Your task to perform on an android device: visit the assistant section in the google photos Image 0: 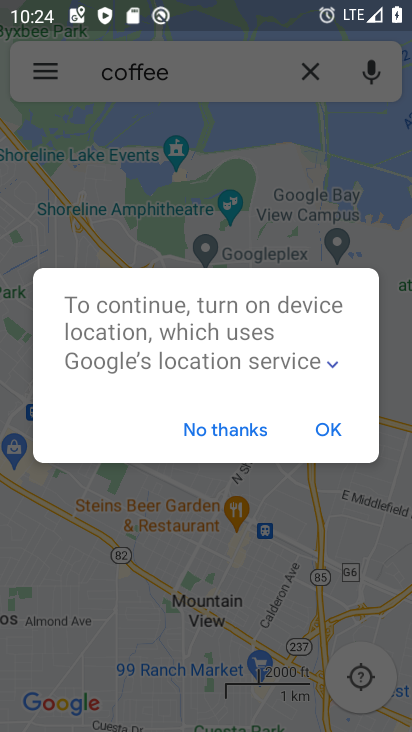
Step 0: press home button
Your task to perform on an android device: visit the assistant section in the google photos Image 1: 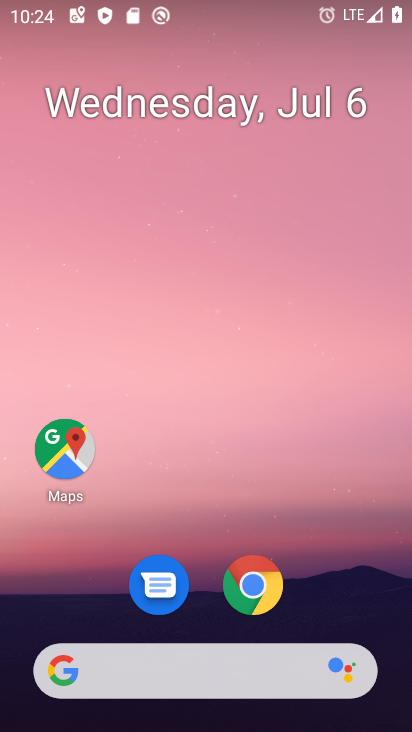
Step 1: drag from (196, 502) to (261, 12)
Your task to perform on an android device: visit the assistant section in the google photos Image 2: 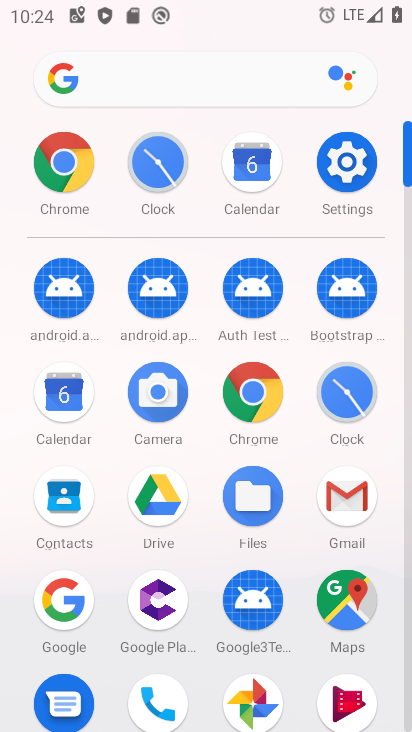
Step 2: click (258, 694)
Your task to perform on an android device: visit the assistant section in the google photos Image 3: 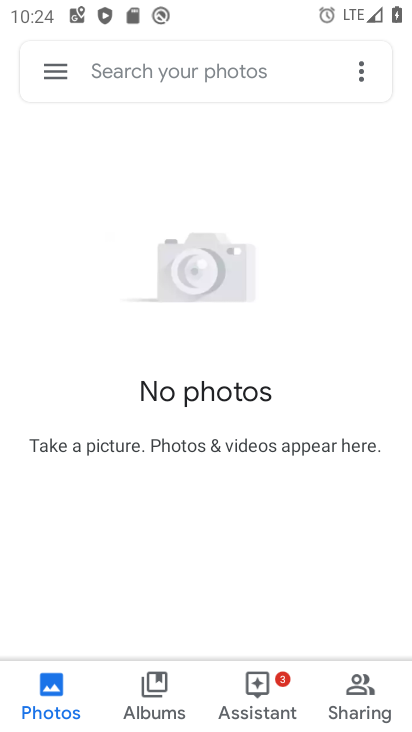
Step 3: click (254, 690)
Your task to perform on an android device: visit the assistant section in the google photos Image 4: 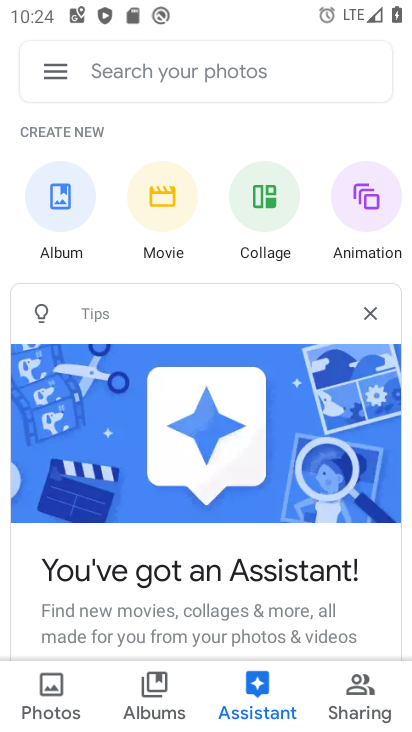
Step 4: task complete